Your task to perform on an android device: uninstall "Booking.com: Hotels and more" Image 0: 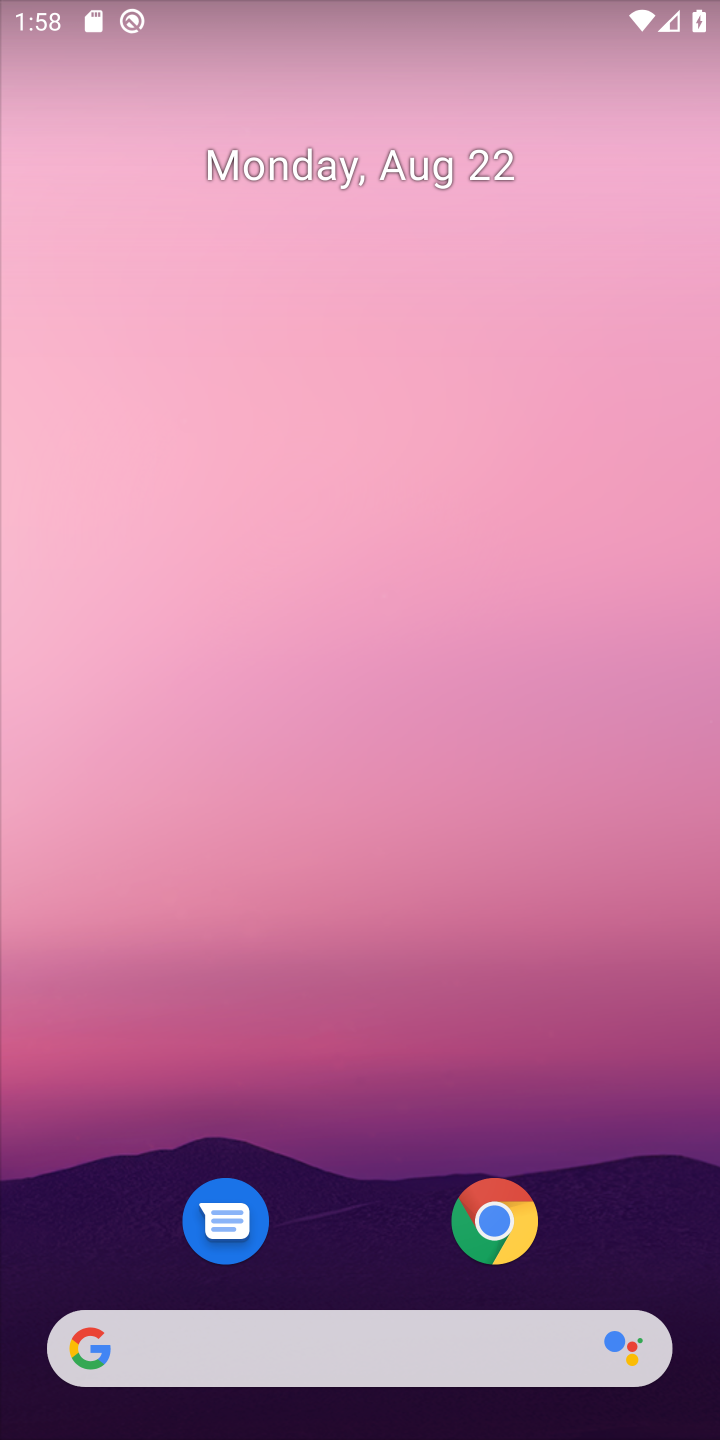
Step 0: drag from (348, 1258) to (388, 70)
Your task to perform on an android device: uninstall "Booking.com: Hotels and more" Image 1: 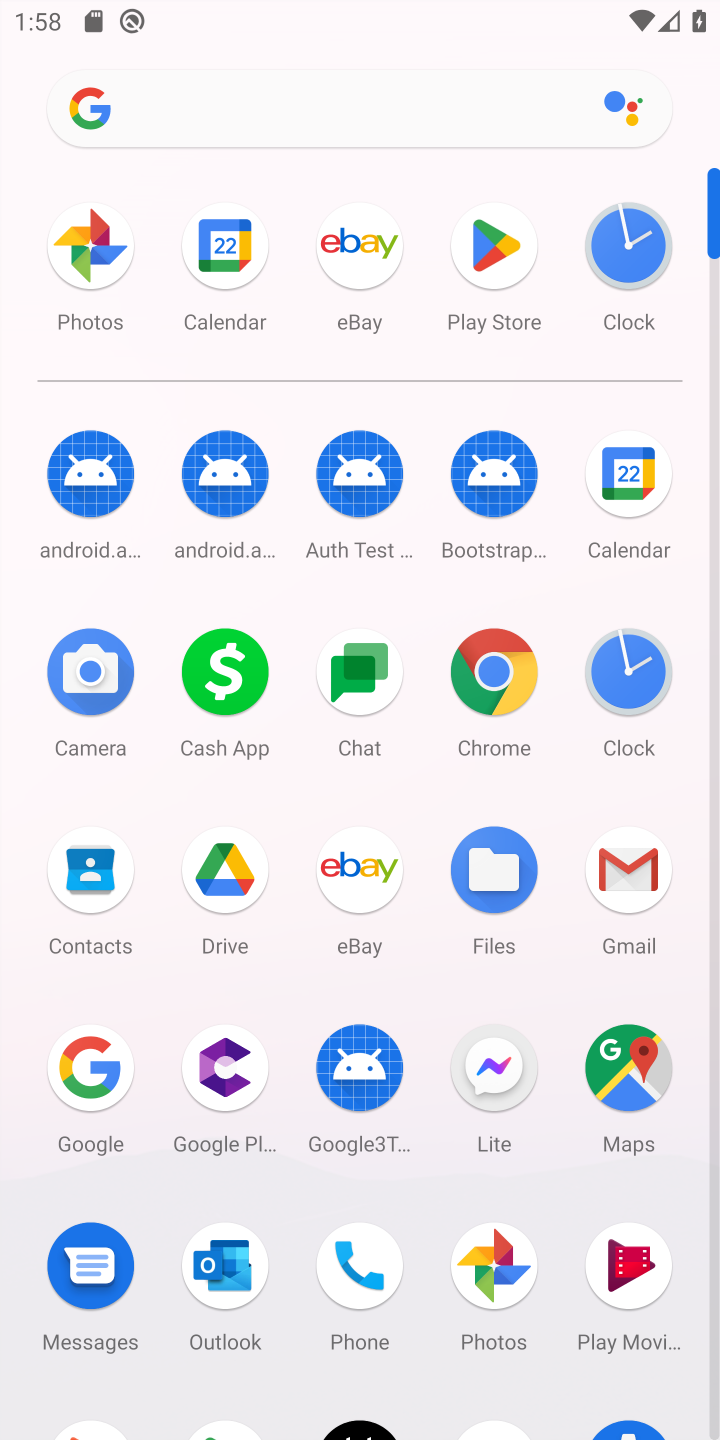
Step 1: click (491, 240)
Your task to perform on an android device: uninstall "Booking.com: Hotels and more" Image 2: 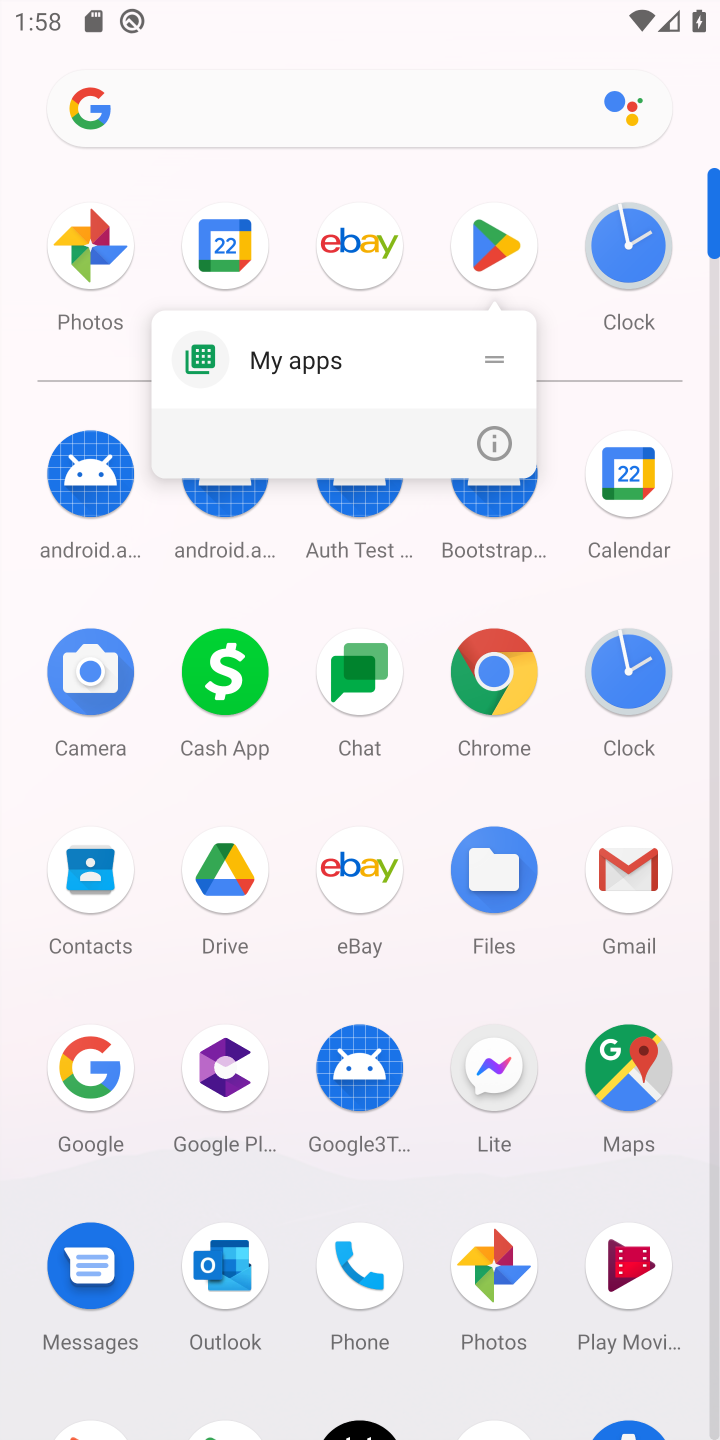
Step 2: click (502, 245)
Your task to perform on an android device: uninstall "Booking.com: Hotels and more" Image 3: 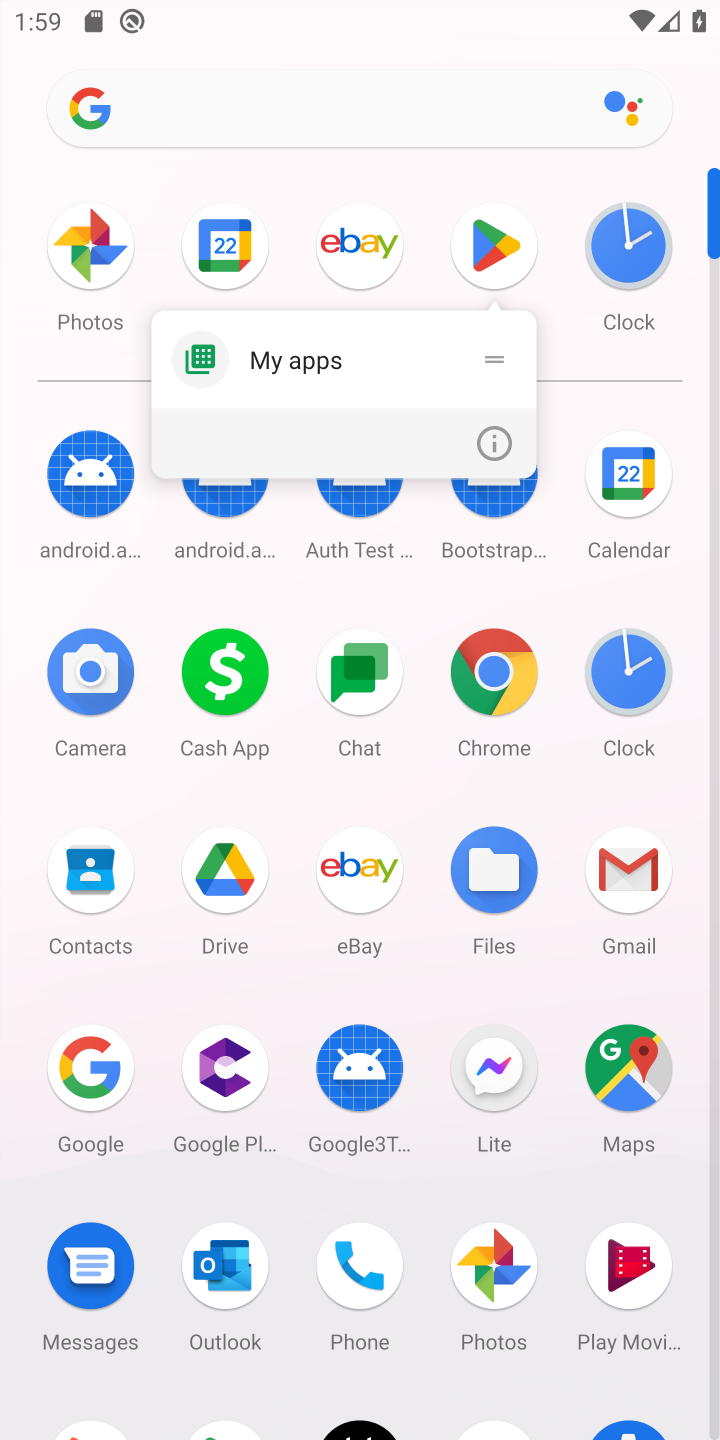
Step 3: click (497, 250)
Your task to perform on an android device: uninstall "Booking.com: Hotels and more" Image 4: 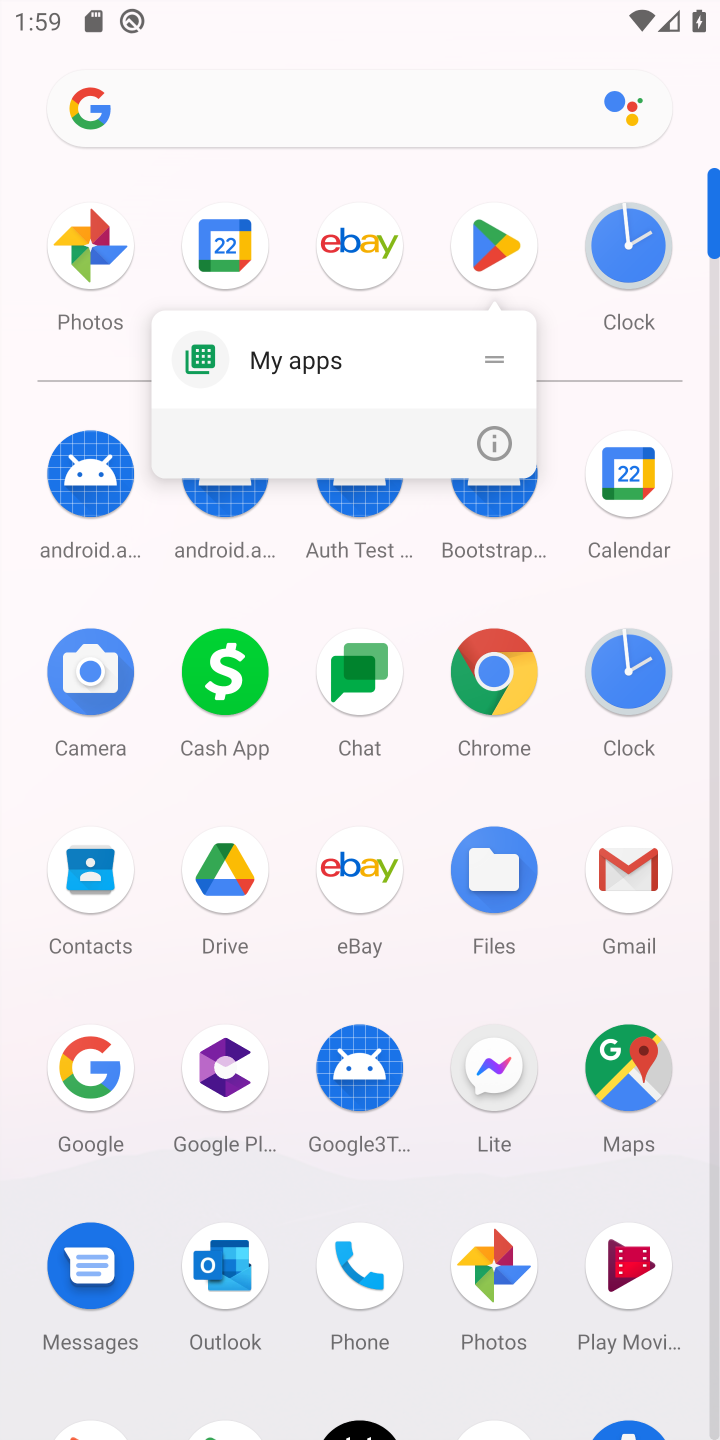
Step 4: drag from (431, 1184) to (395, 475)
Your task to perform on an android device: uninstall "Booking.com: Hotels and more" Image 5: 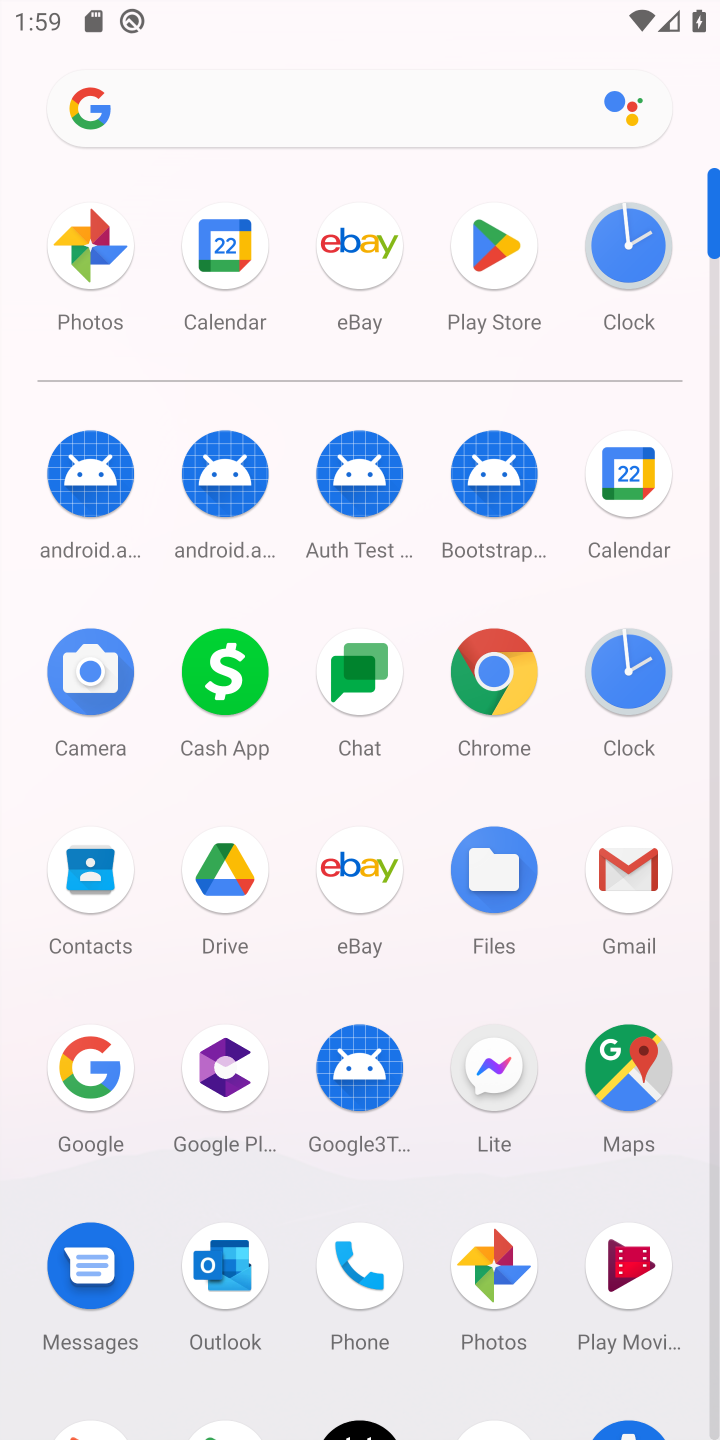
Step 5: drag from (433, 1193) to (497, 94)
Your task to perform on an android device: uninstall "Booking.com: Hotels and more" Image 6: 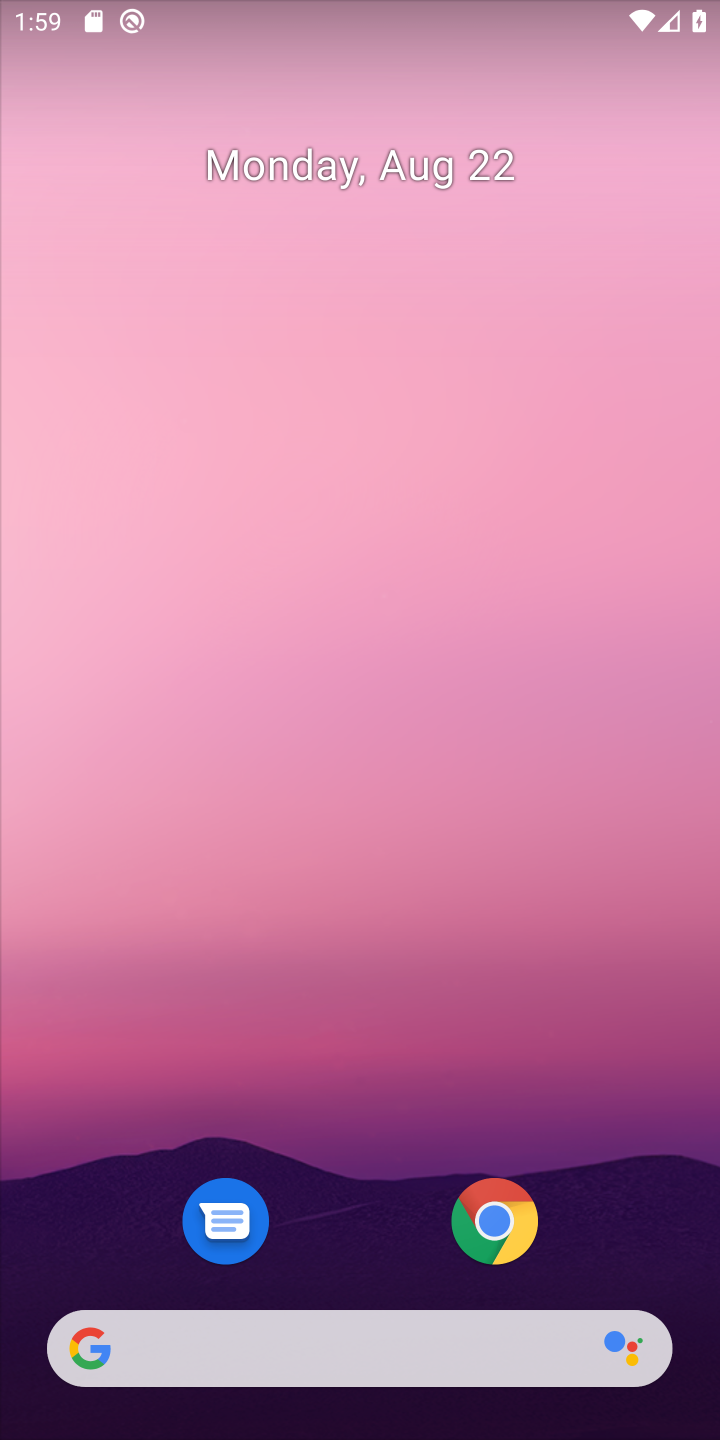
Step 6: drag from (430, 1151) to (447, 416)
Your task to perform on an android device: uninstall "Booking.com: Hotels and more" Image 7: 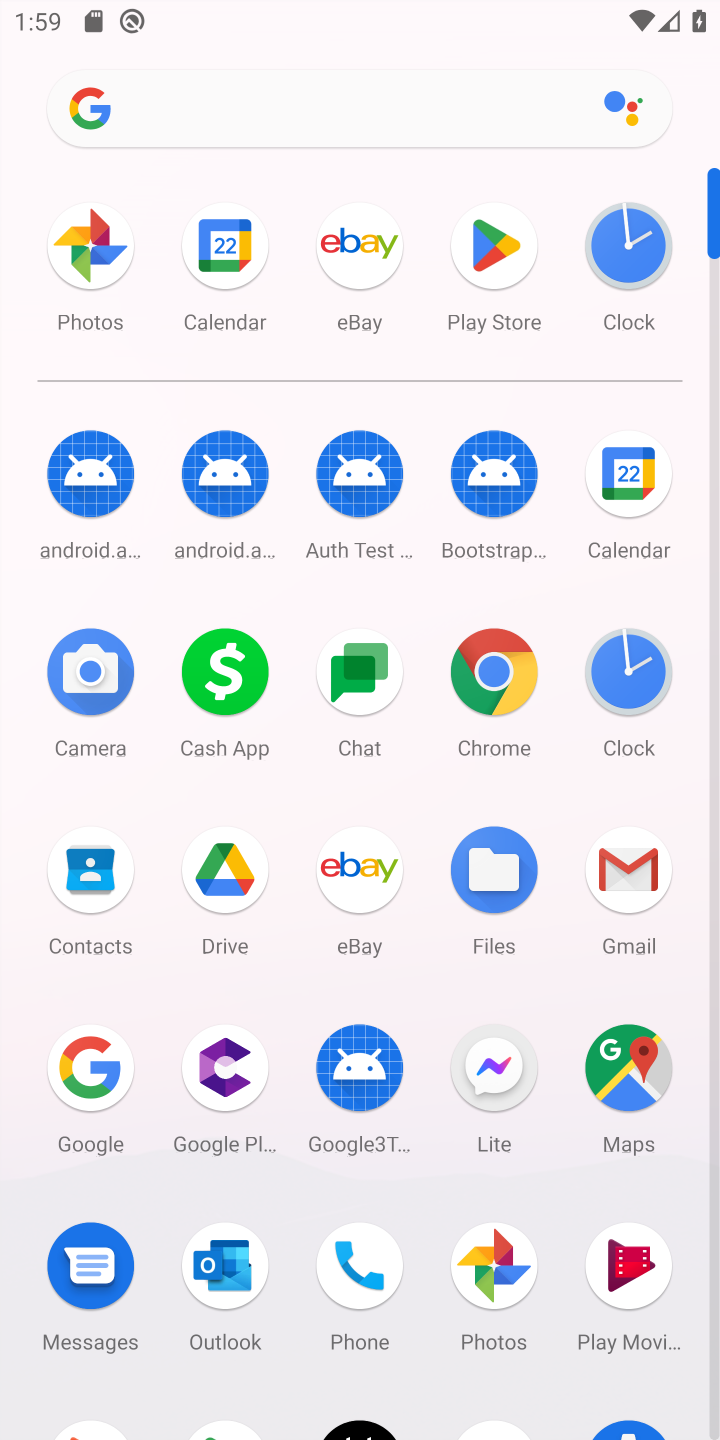
Step 7: drag from (418, 1183) to (420, 394)
Your task to perform on an android device: uninstall "Booking.com: Hotels and more" Image 8: 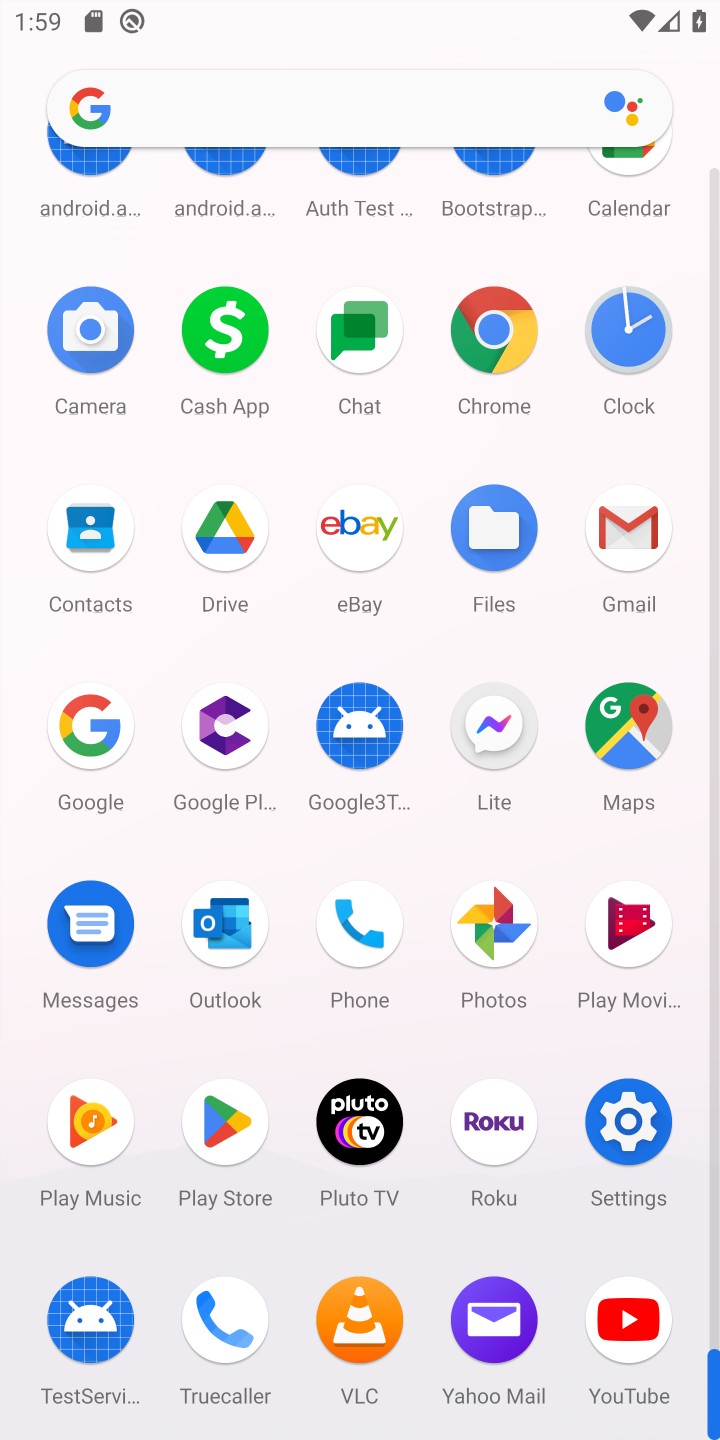
Step 8: click (223, 1114)
Your task to perform on an android device: uninstall "Booking.com: Hotels and more" Image 9: 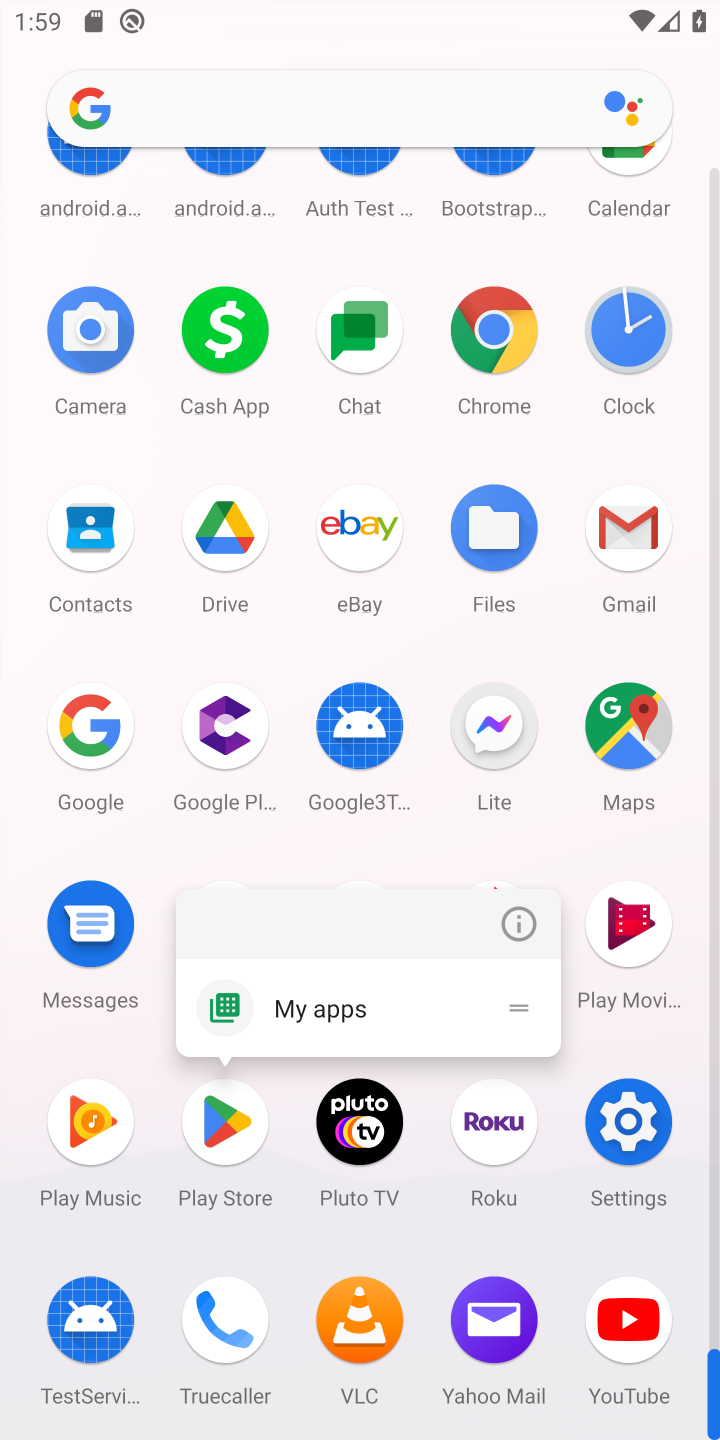
Step 9: click (231, 1117)
Your task to perform on an android device: uninstall "Booking.com: Hotels and more" Image 10: 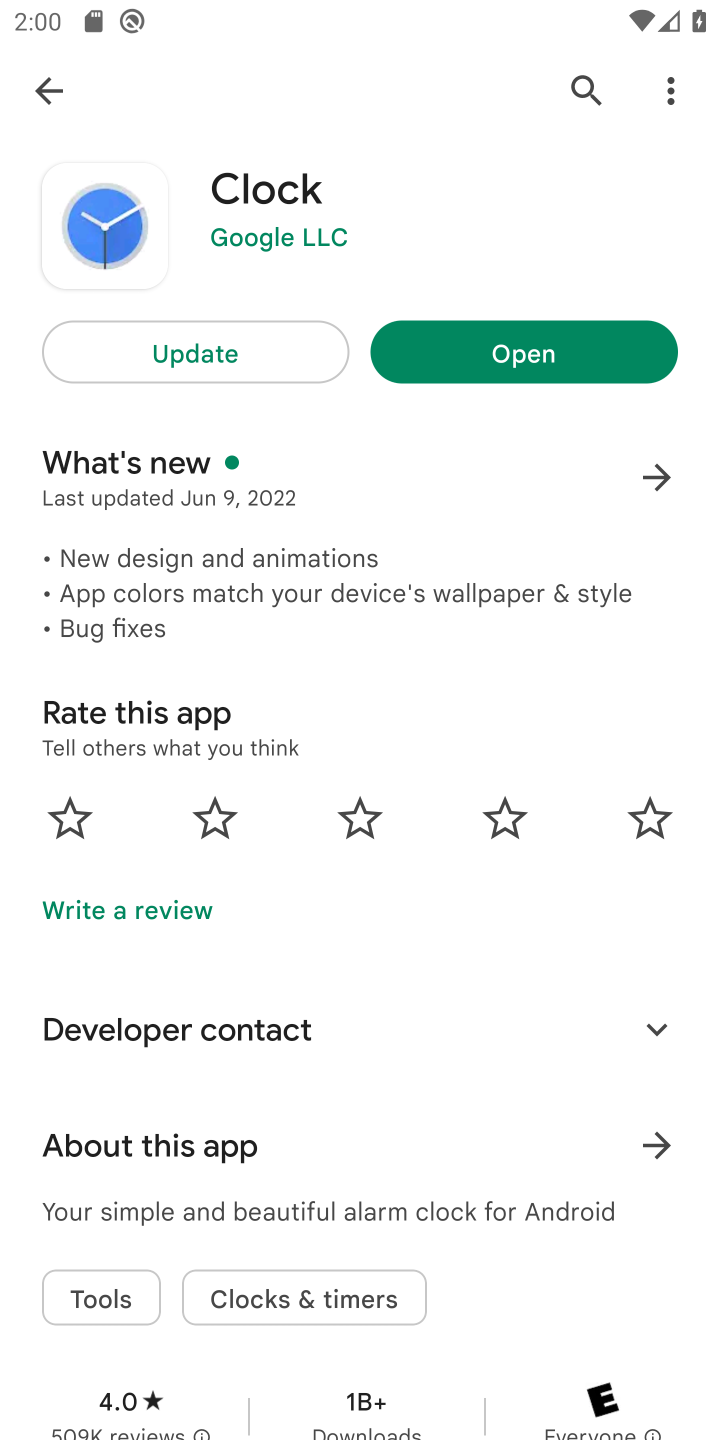
Step 10: click (45, 93)
Your task to perform on an android device: uninstall "Booking.com: Hotels and more" Image 11: 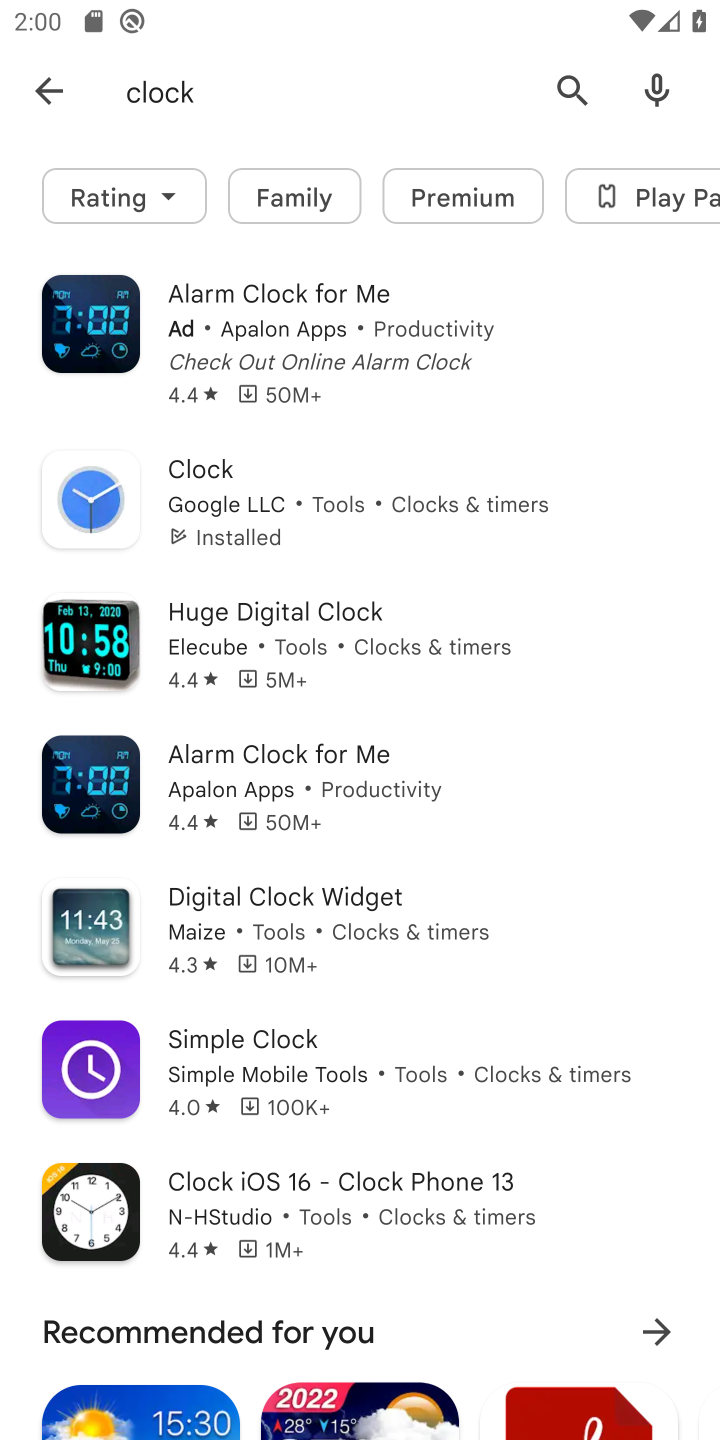
Step 11: click (553, 83)
Your task to perform on an android device: uninstall "Booking.com: Hotels and more" Image 12: 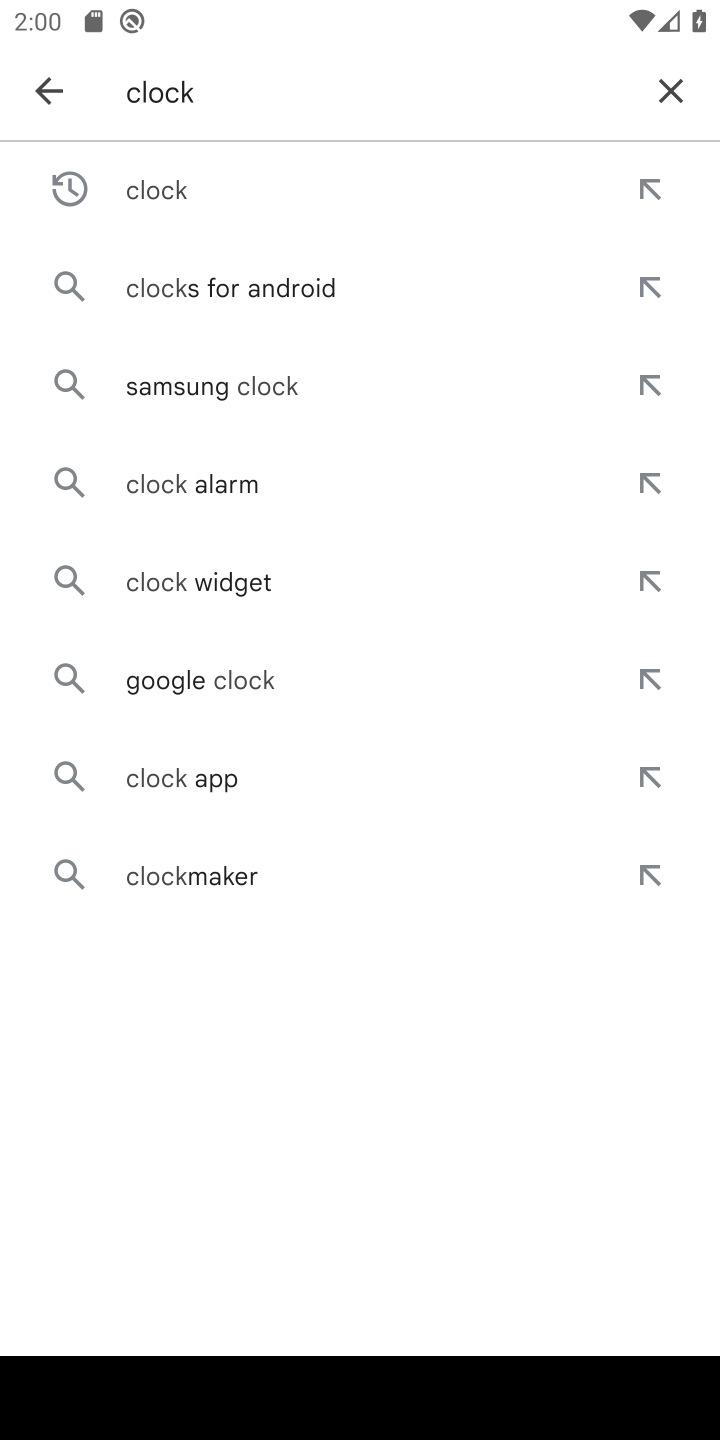
Step 12: click (652, 79)
Your task to perform on an android device: uninstall "Booking.com: Hotels and more" Image 13: 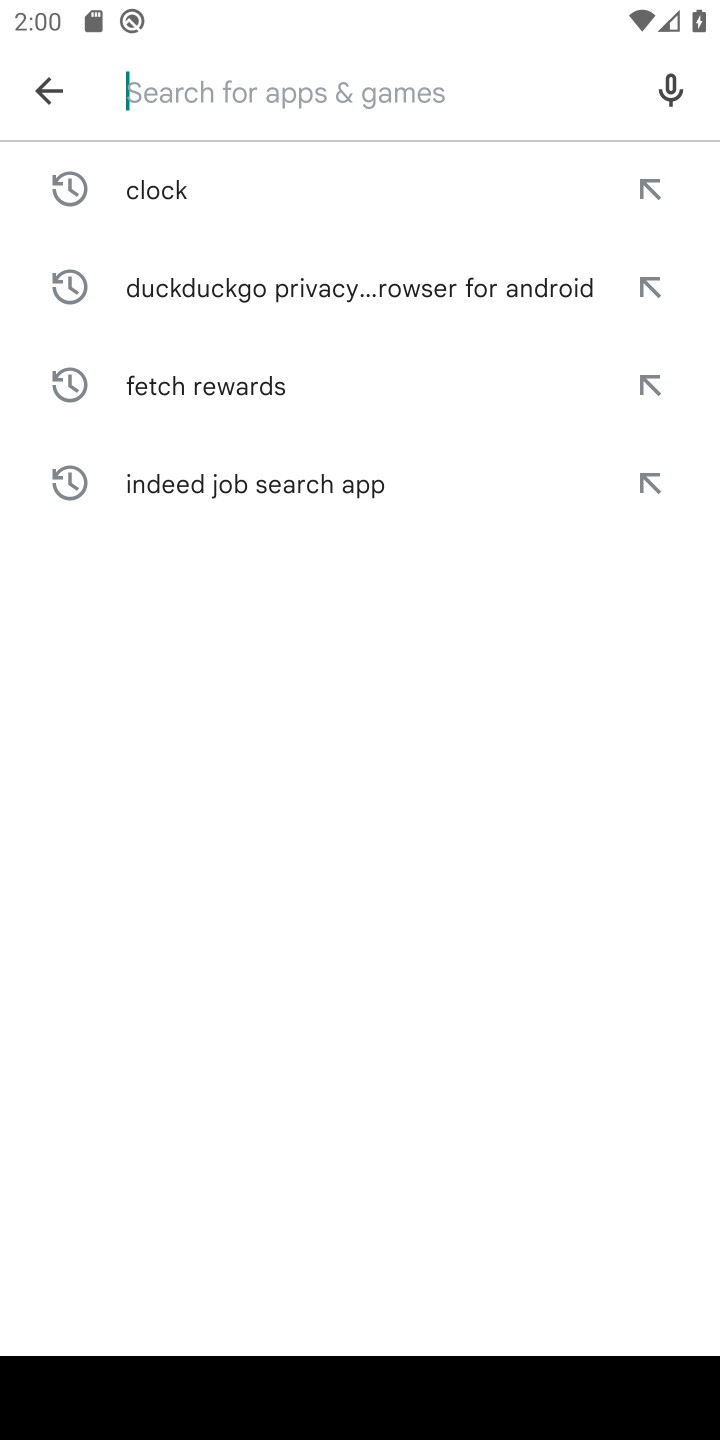
Step 13: type "Booking.com: Hotels and more"
Your task to perform on an android device: uninstall "Booking.com: Hotels and more" Image 14: 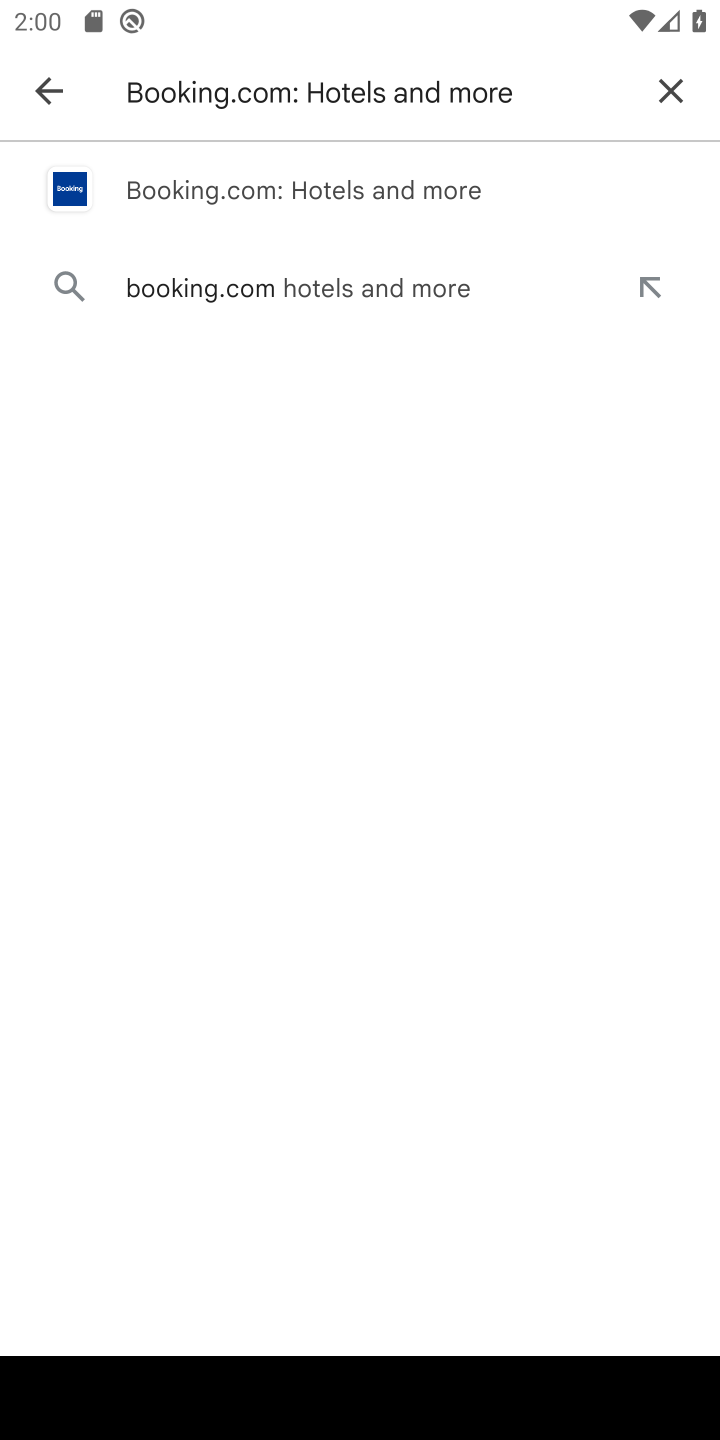
Step 14: click (217, 199)
Your task to perform on an android device: uninstall "Booking.com: Hotels and more" Image 15: 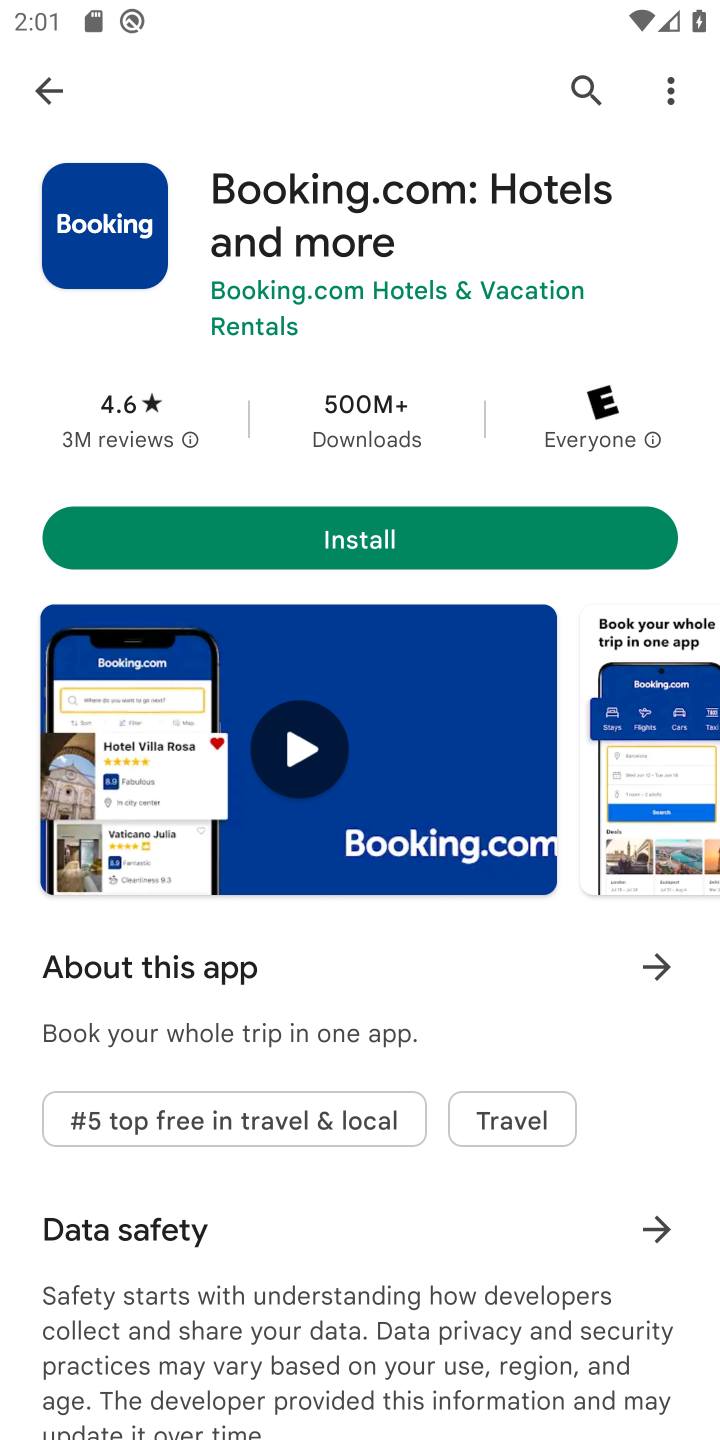
Step 15: task complete